Your task to perform on an android device: Open Yahoo.com Image 0: 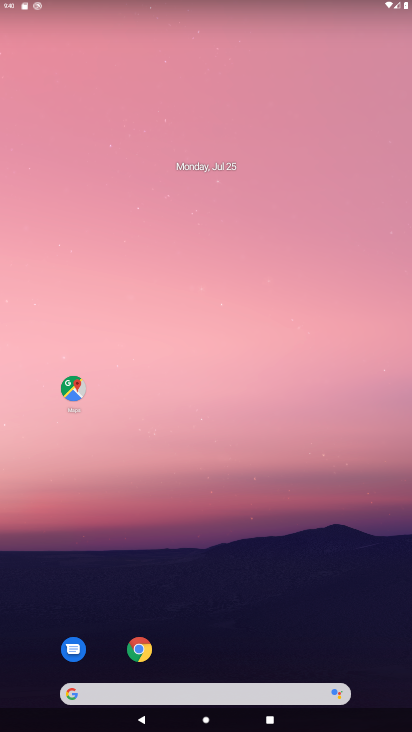
Step 0: click (142, 645)
Your task to perform on an android device: Open Yahoo.com Image 1: 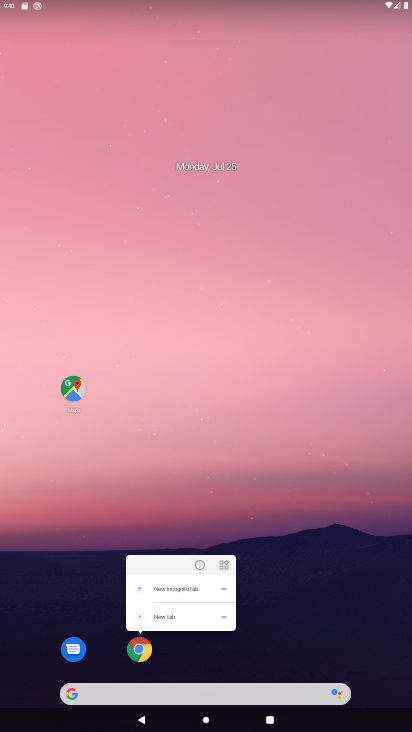
Step 1: click (143, 663)
Your task to perform on an android device: Open Yahoo.com Image 2: 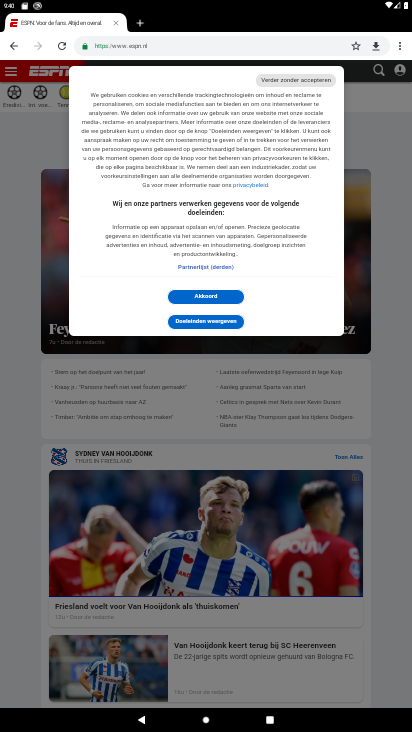
Step 2: click (164, 40)
Your task to perform on an android device: Open Yahoo.com Image 3: 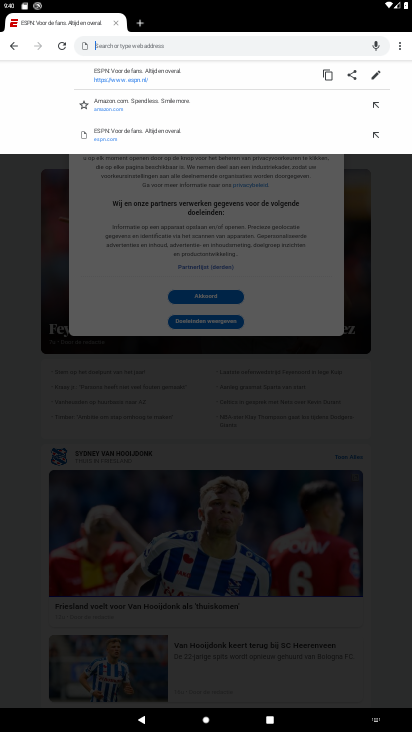
Step 3: type "yahoo.com"
Your task to perform on an android device: Open Yahoo.com Image 4: 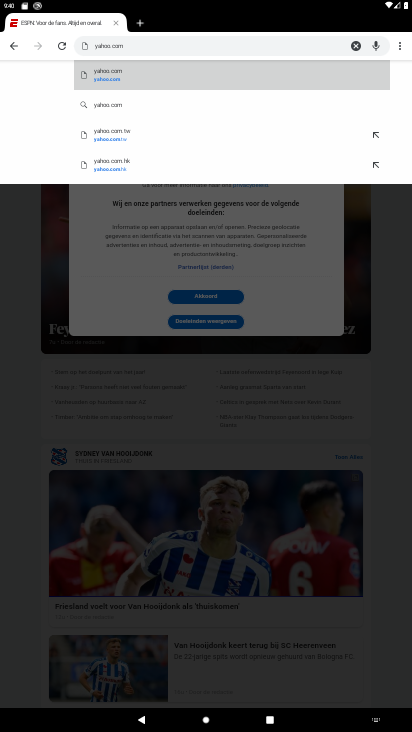
Step 4: click (141, 77)
Your task to perform on an android device: Open Yahoo.com Image 5: 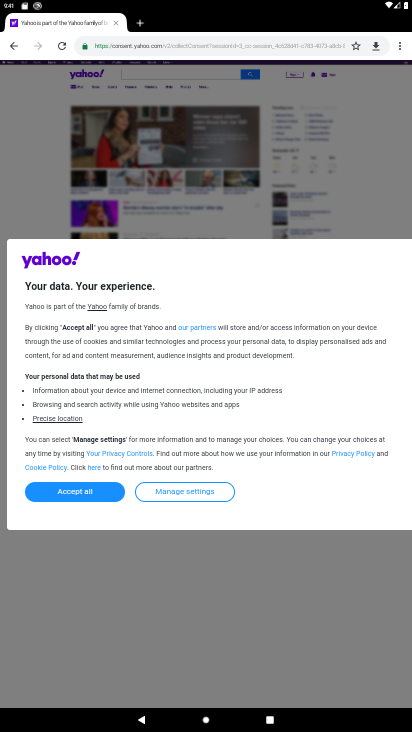
Step 5: task complete